Your task to perform on an android device: Empty the shopping cart on target.com. Add logitech g933 to the cart on target.com, then select checkout. Image 0: 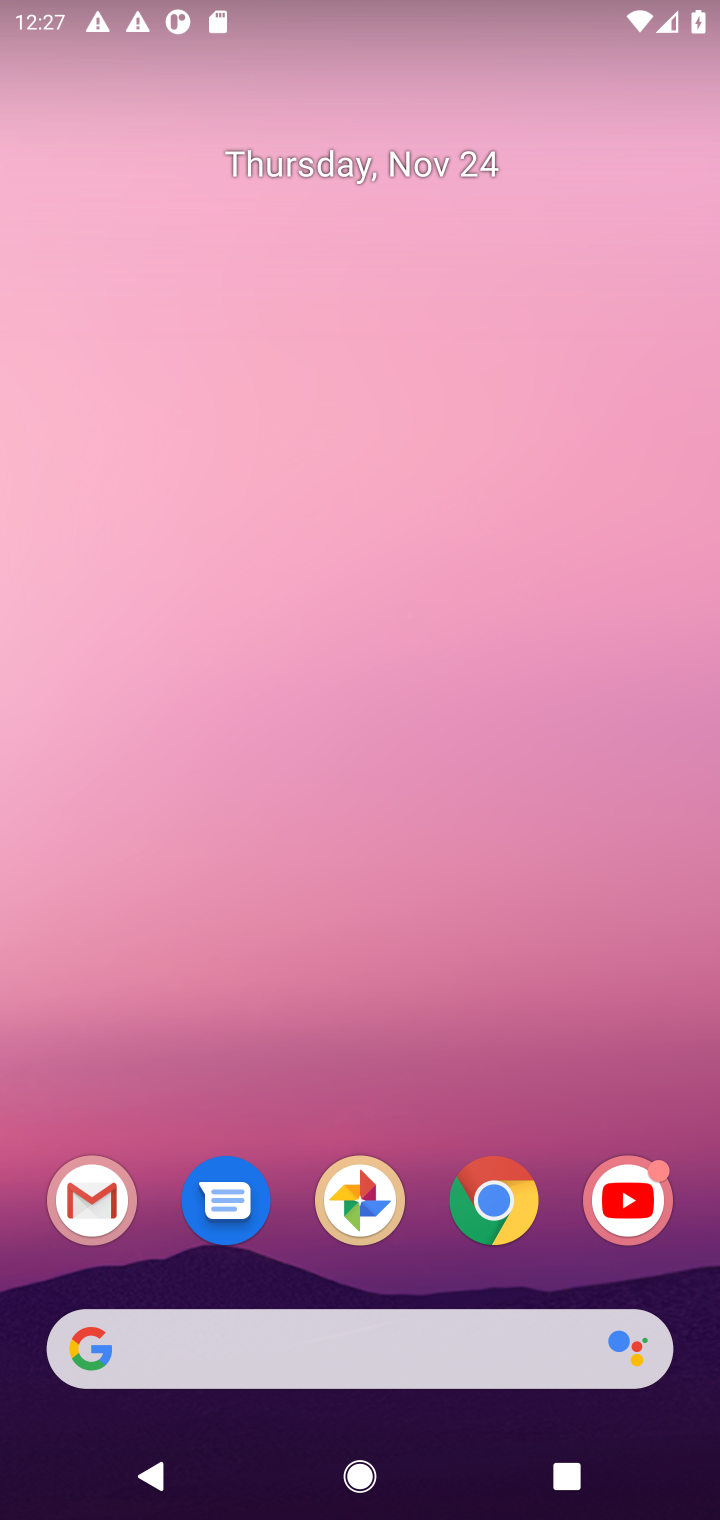
Step 0: click (229, 1329)
Your task to perform on an android device: Empty the shopping cart on target.com. Add logitech g933 to the cart on target.com, then select checkout. Image 1: 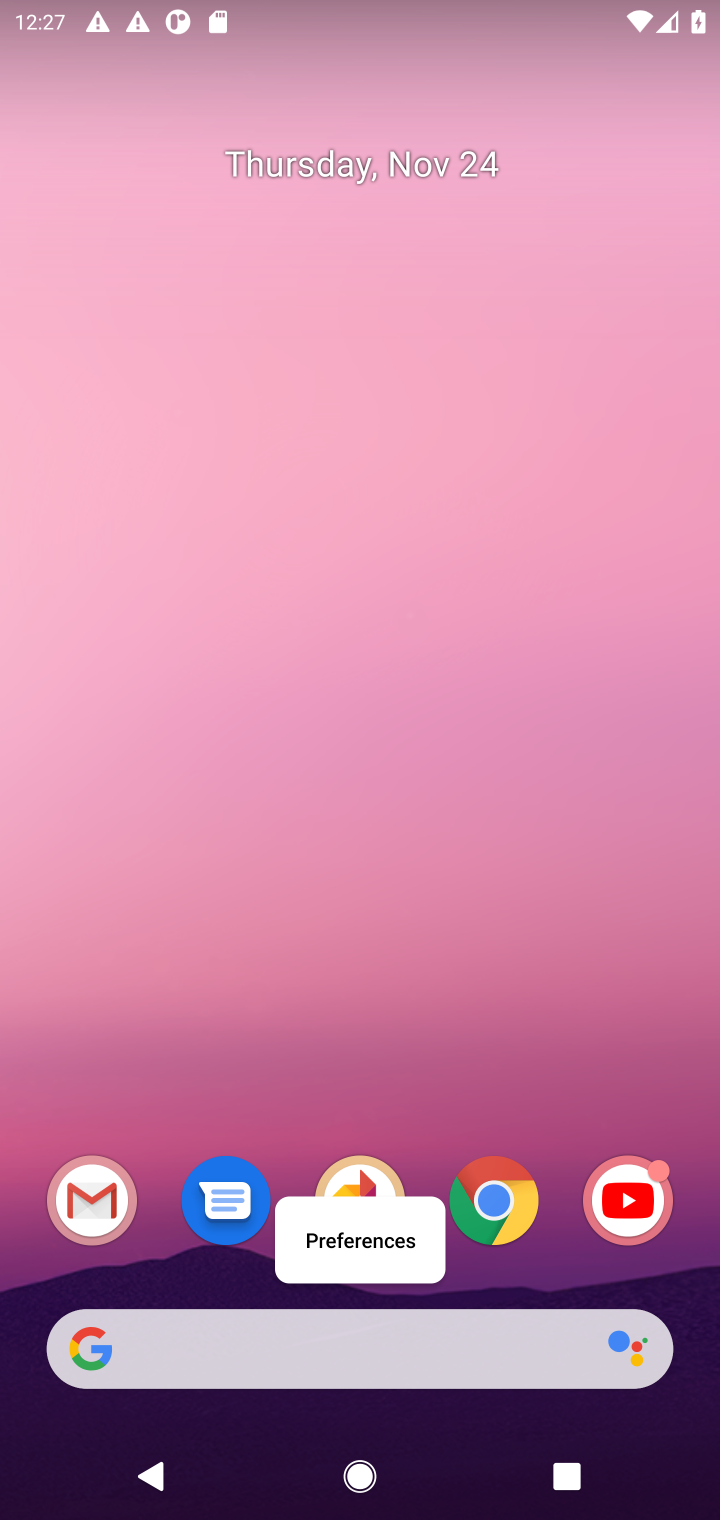
Step 1: click (374, 1332)
Your task to perform on an android device: Empty the shopping cart on target.com. Add logitech g933 to the cart on target.com, then select checkout. Image 2: 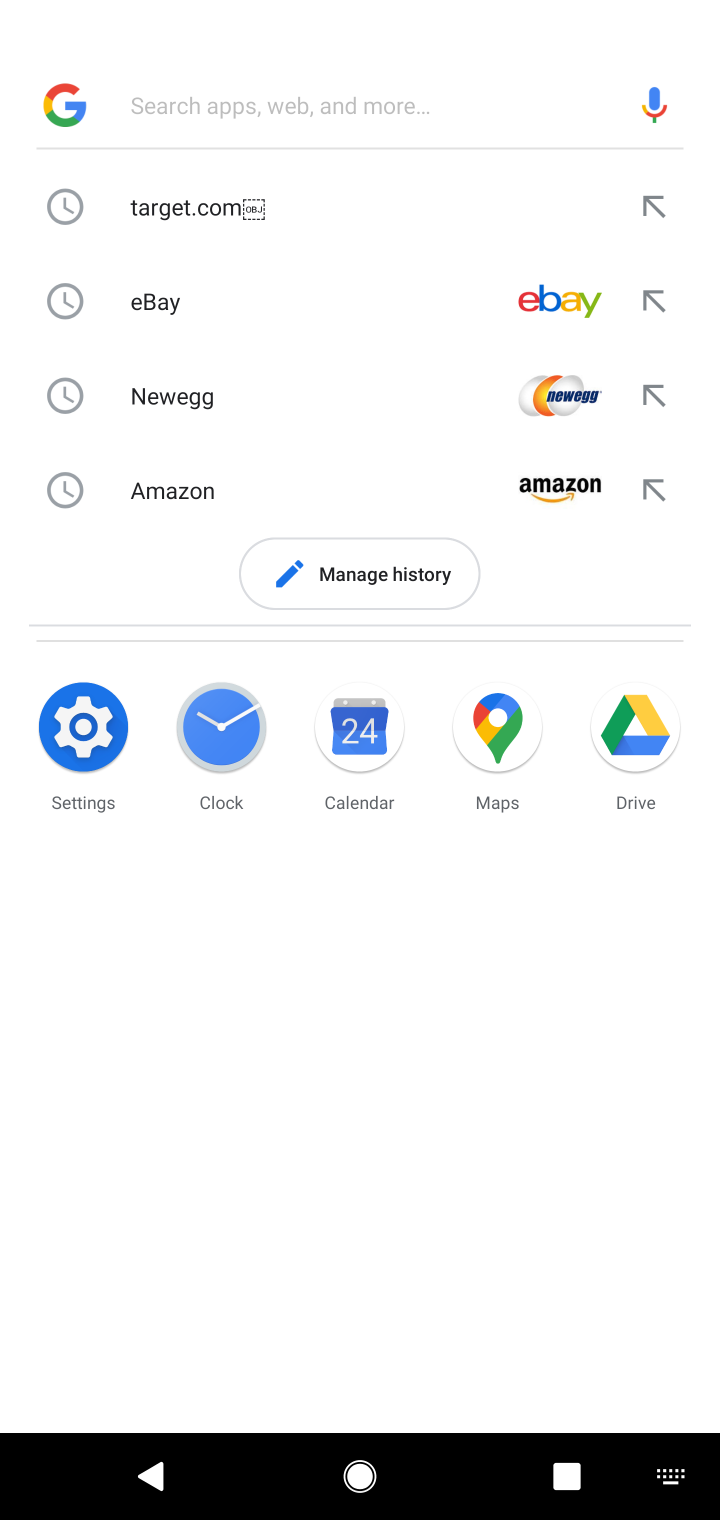
Step 2: type "target.com"
Your task to perform on an android device: Empty the shopping cart on target.com. Add logitech g933 to the cart on target.com, then select checkout. Image 3: 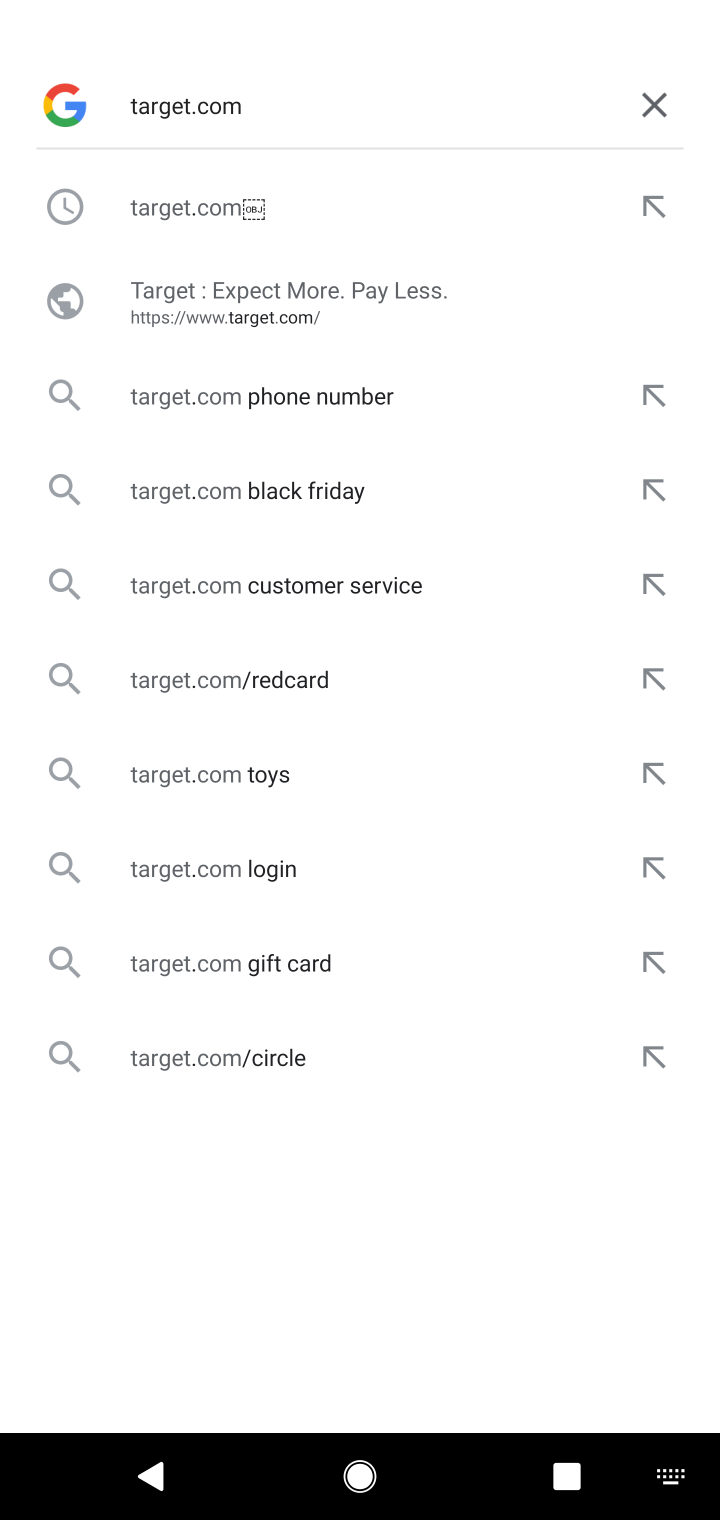
Step 3: click (358, 227)
Your task to perform on an android device: Empty the shopping cart on target.com. Add logitech g933 to the cart on target.com, then select checkout. Image 4: 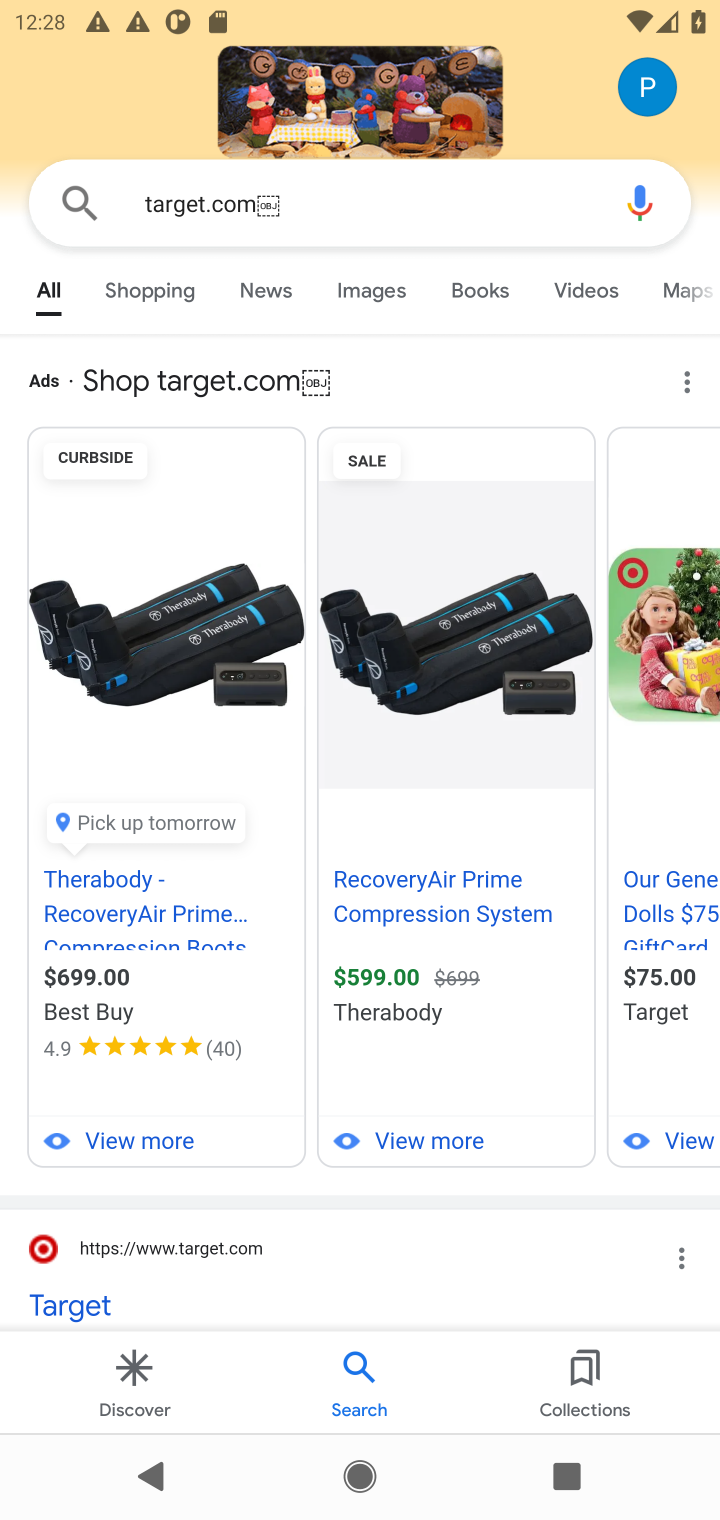
Step 4: click (31, 1301)
Your task to perform on an android device: Empty the shopping cart on target.com. Add logitech g933 to the cart on target.com, then select checkout. Image 5: 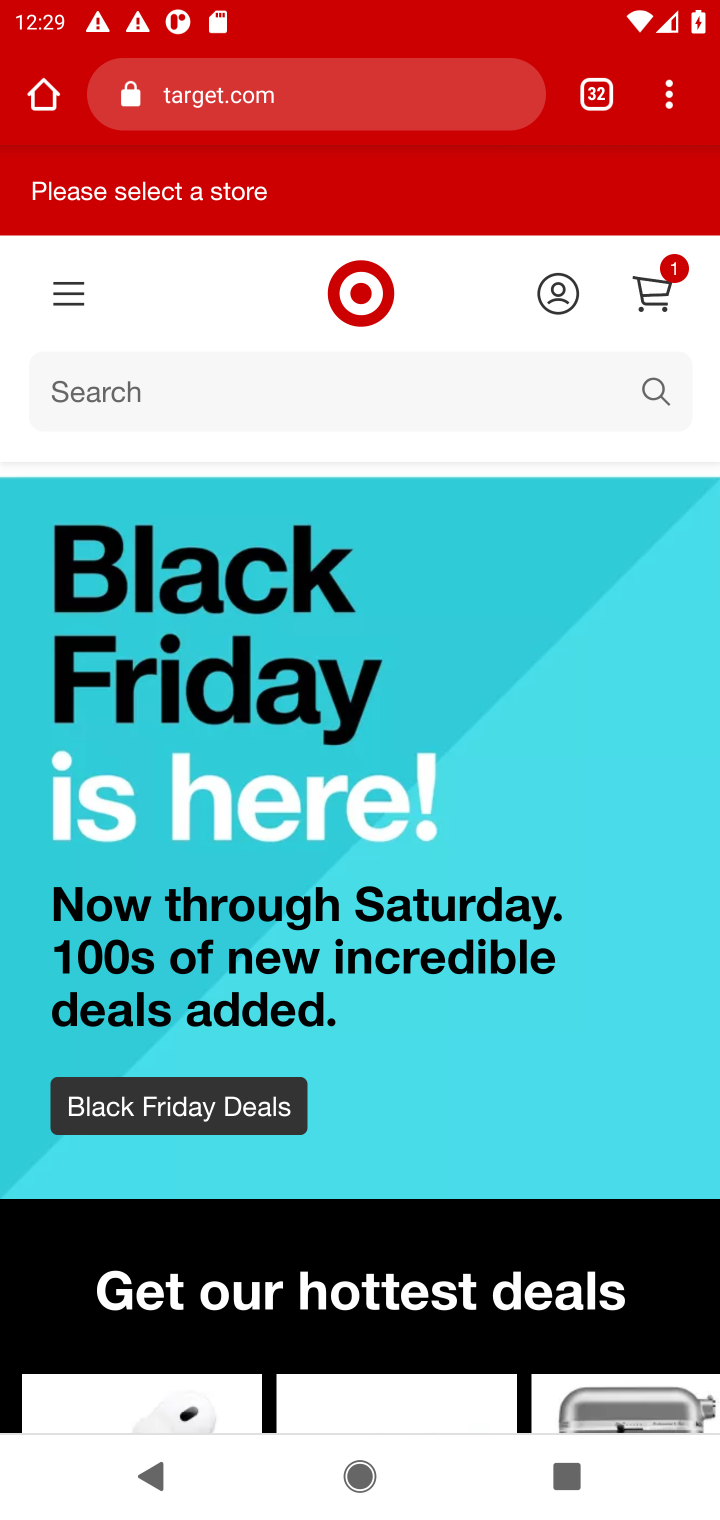
Step 5: click (257, 401)
Your task to perform on an android device: Empty the shopping cart on target.com. Add logitech g933 to the cart on target.com, then select checkout. Image 6: 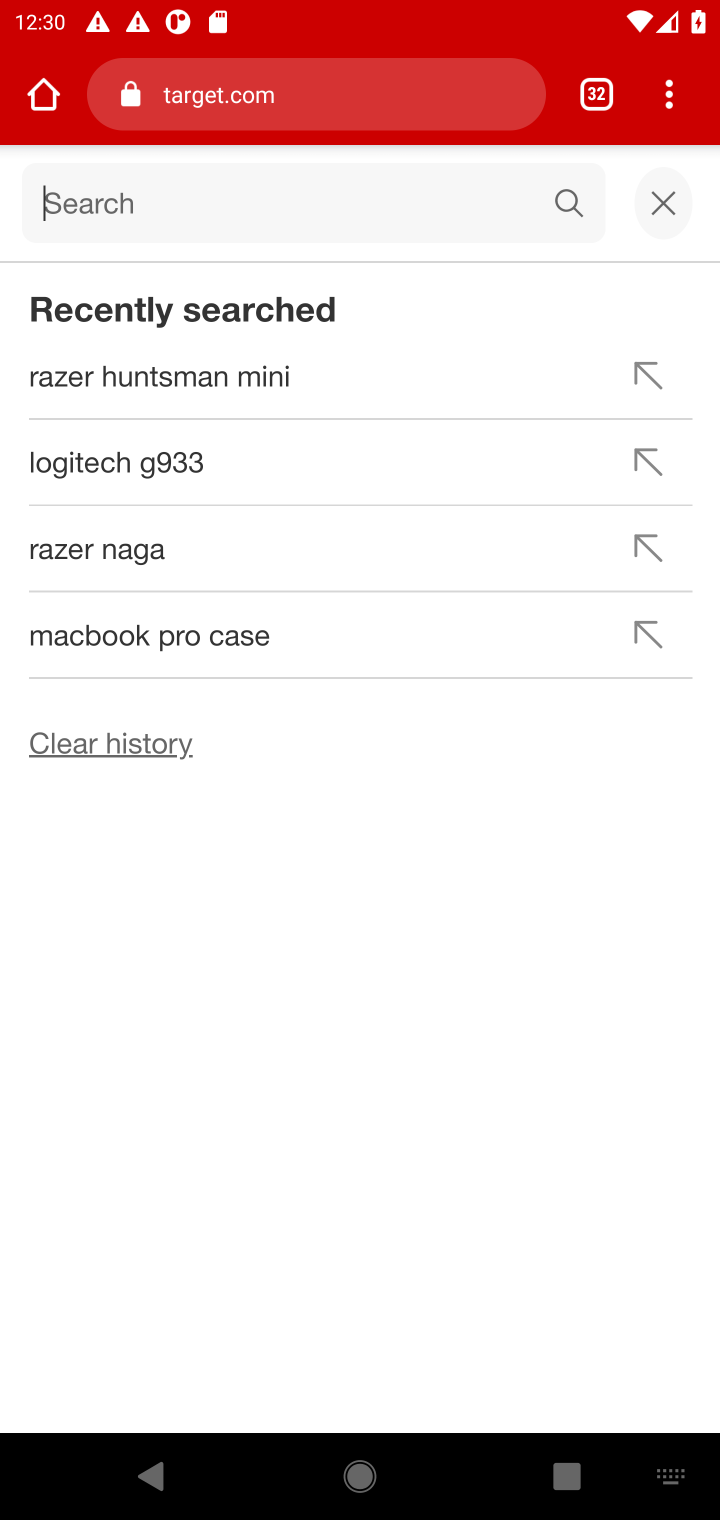
Step 6: type "logitech g933"
Your task to perform on an android device: Empty the shopping cart on target.com. Add logitech g933 to the cart on target.com, then select checkout. Image 7: 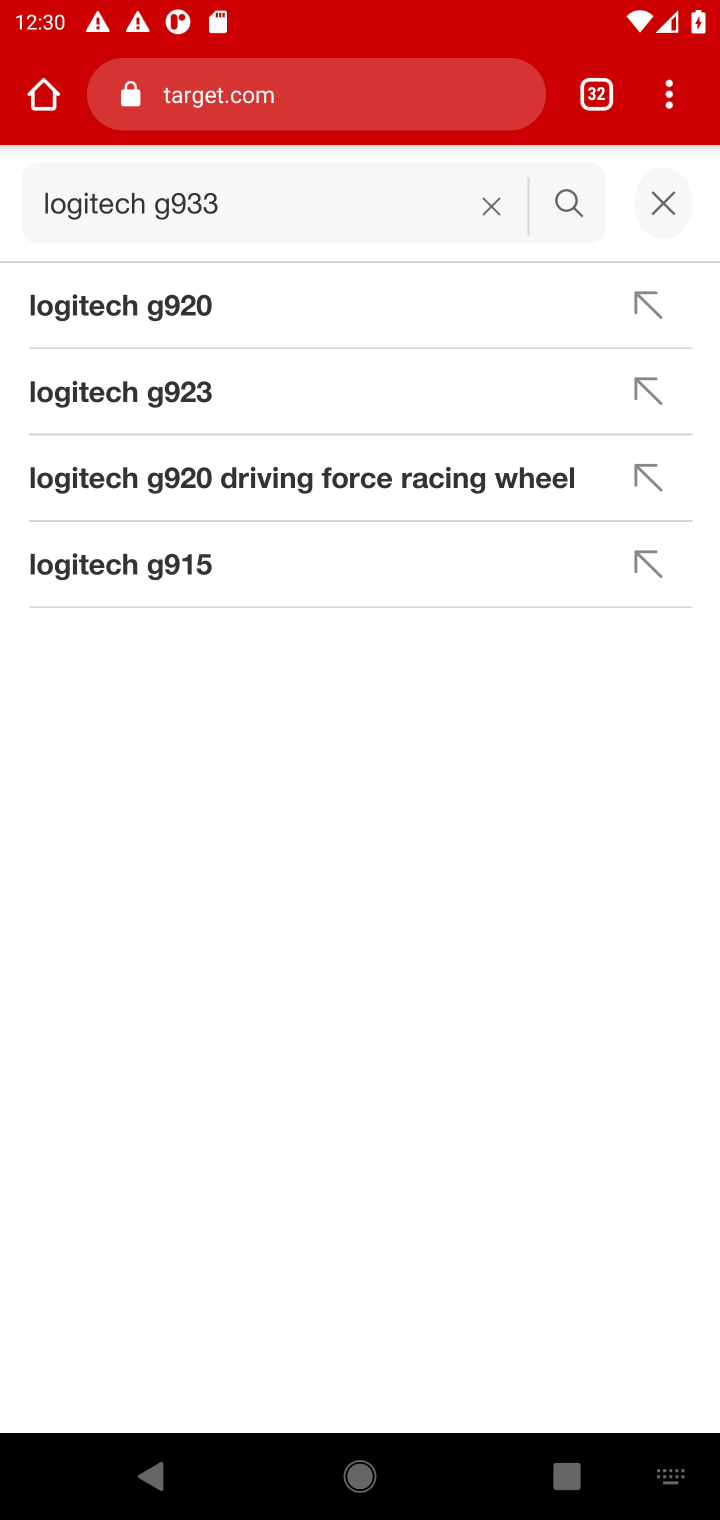
Step 7: click (577, 197)
Your task to perform on an android device: Empty the shopping cart on target.com. Add logitech g933 to the cart on target.com, then select checkout. Image 8: 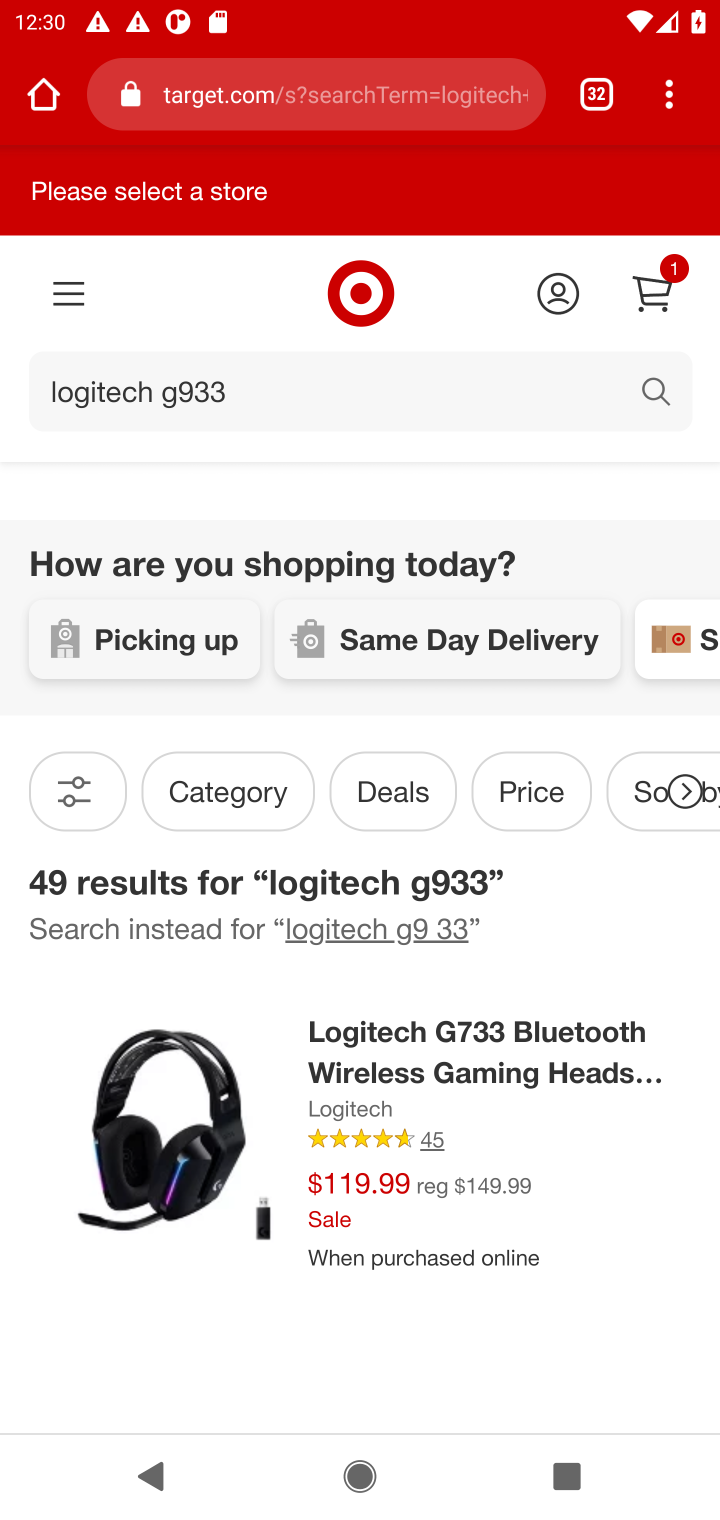
Step 8: drag from (506, 1278) to (445, 826)
Your task to perform on an android device: Empty the shopping cart on target.com. Add logitech g933 to the cart on target.com, then select checkout. Image 9: 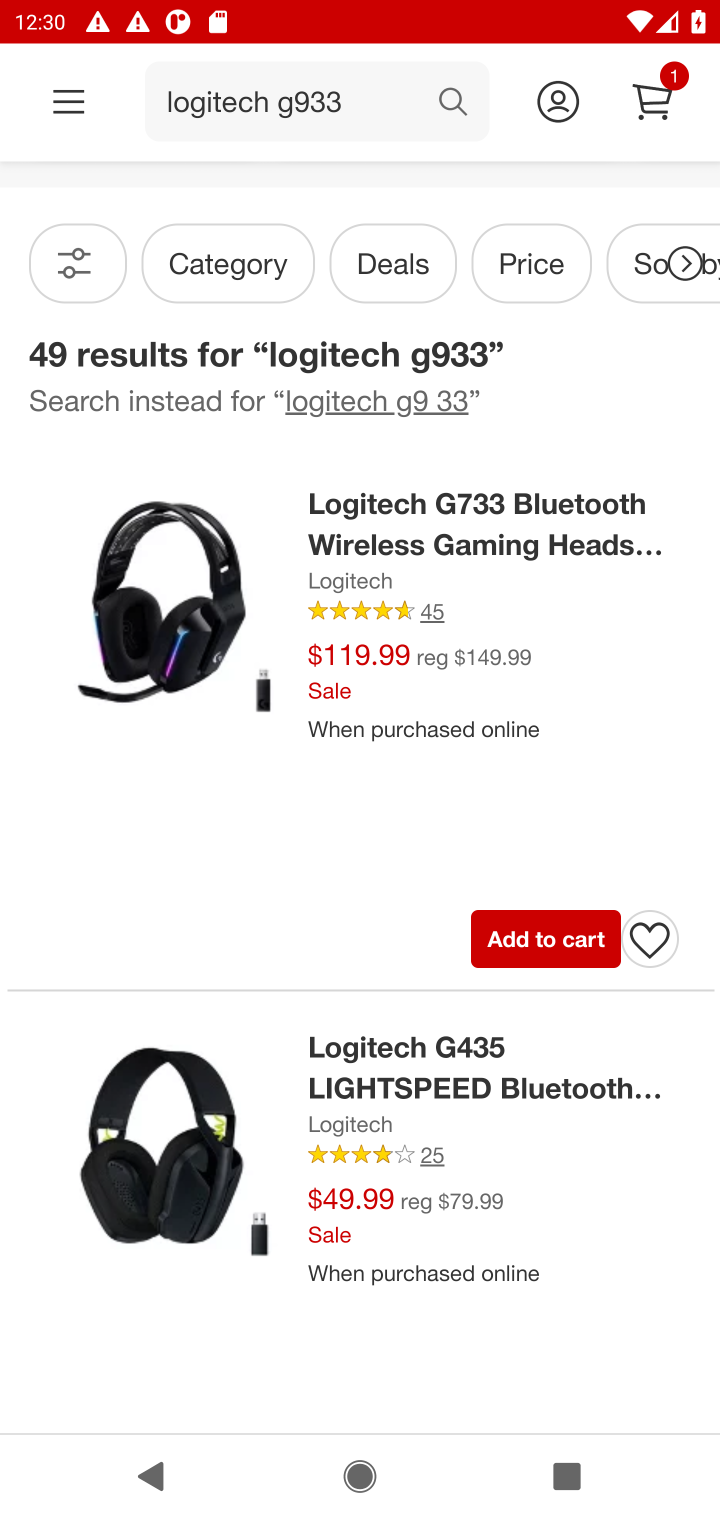
Step 9: click (507, 967)
Your task to perform on an android device: Empty the shopping cart on target.com. Add logitech g933 to the cart on target.com, then select checkout. Image 10: 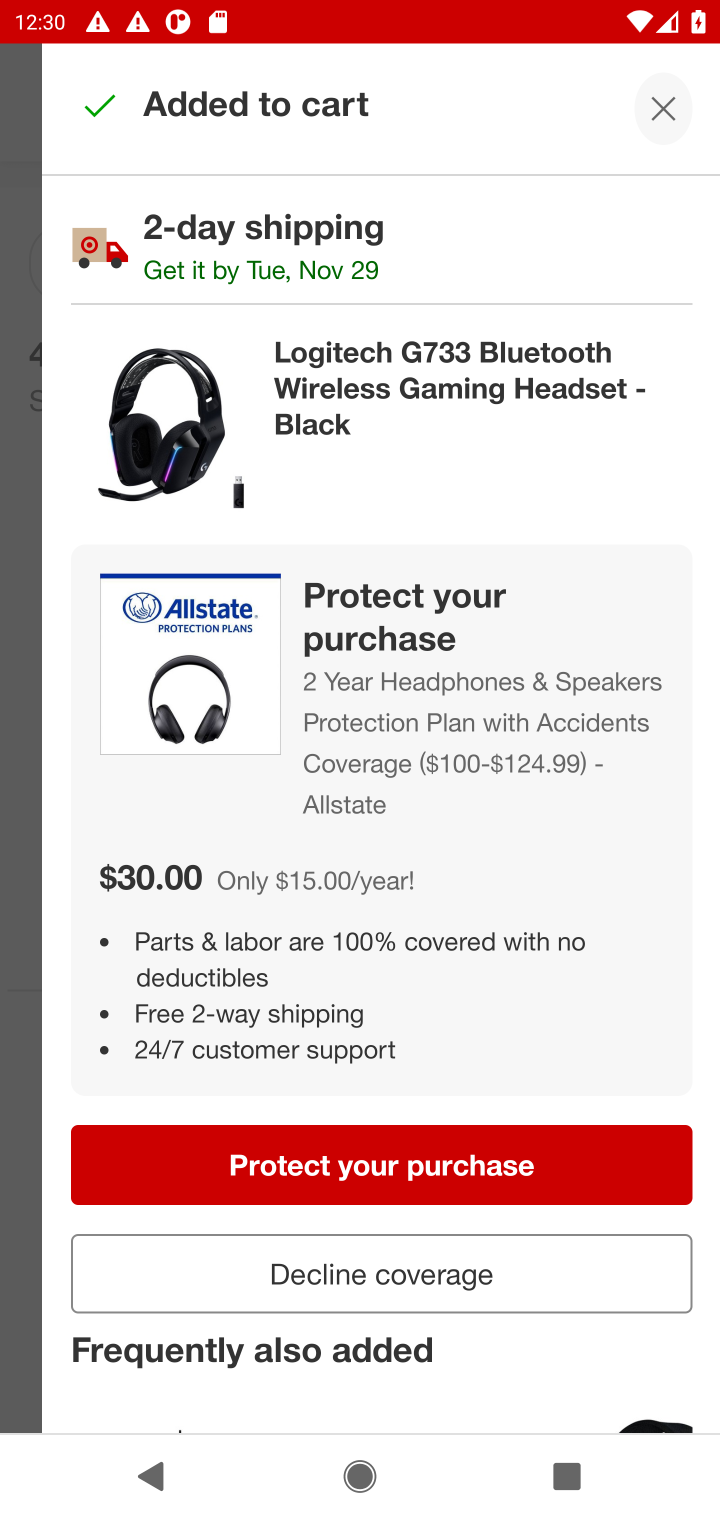
Step 10: task complete